Your task to perform on an android device: turn pop-ups on in chrome Image 0: 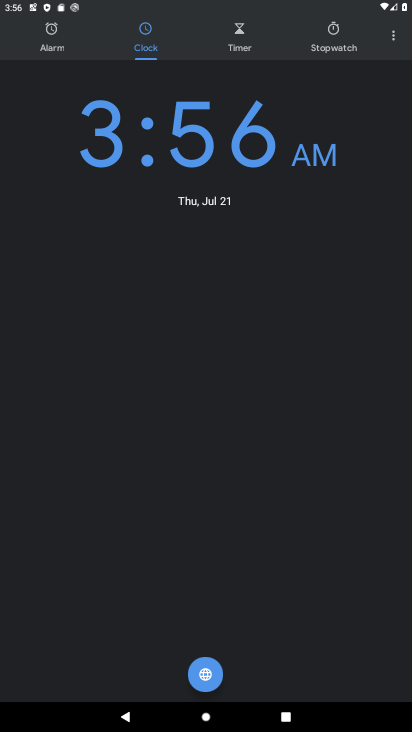
Step 0: press home button
Your task to perform on an android device: turn pop-ups on in chrome Image 1: 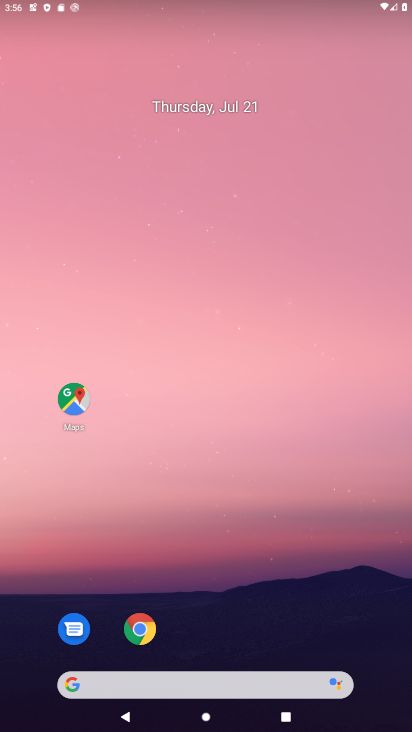
Step 1: drag from (284, 570) to (279, 115)
Your task to perform on an android device: turn pop-ups on in chrome Image 2: 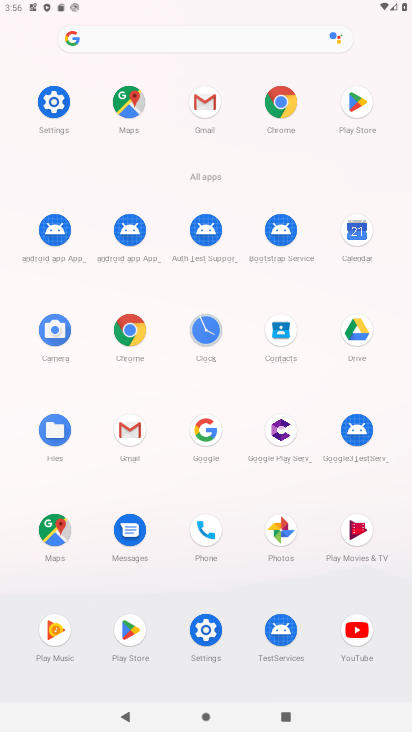
Step 2: click (280, 107)
Your task to perform on an android device: turn pop-ups on in chrome Image 3: 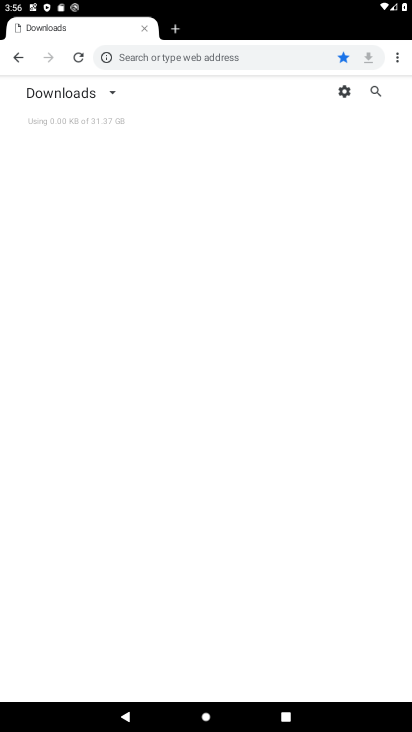
Step 3: drag from (391, 52) to (273, 261)
Your task to perform on an android device: turn pop-ups on in chrome Image 4: 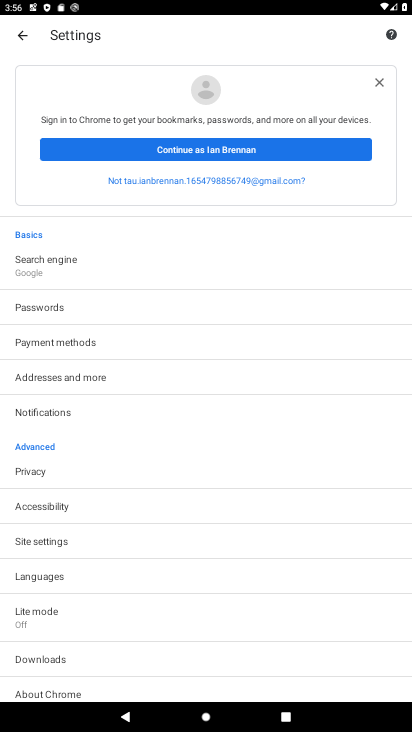
Step 4: click (60, 539)
Your task to perform on an android device: turn pop-ups on in chrome Image 5: 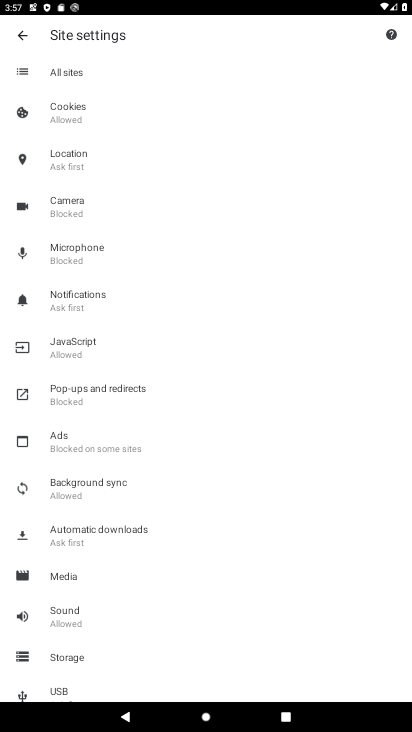
Step 5: click (99, 395)
Your task to perform on an android device: turn pop-ups on in chrome Image 6: 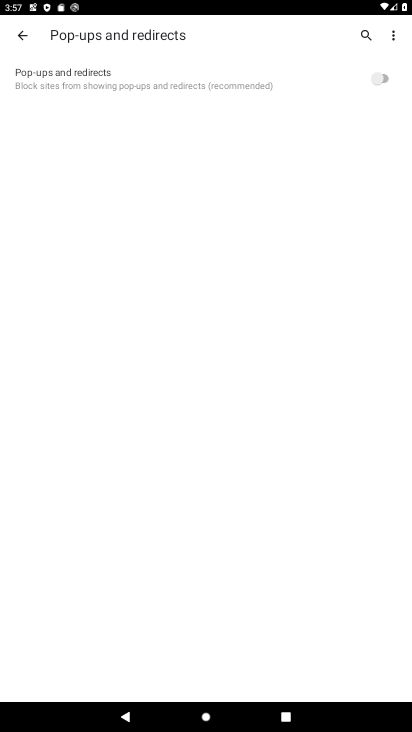
Step 6: click (374, 71)
Your task to perform on an android device: turn pop-ups on in chrome Image 7: 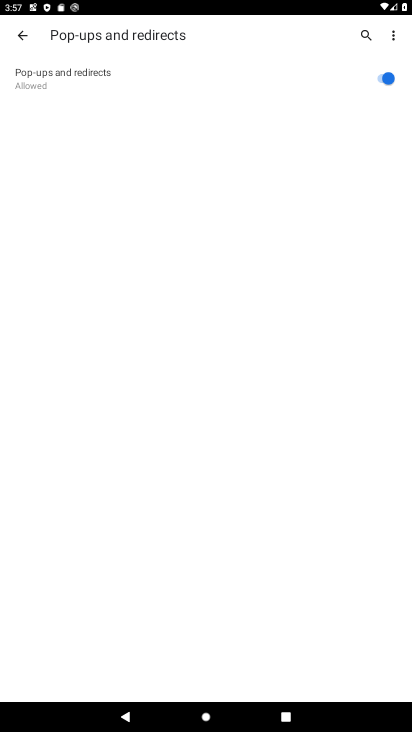
Step 7: task complete